Your task to perform on an android device: toggle priority inbox in the gmail app Image 0: 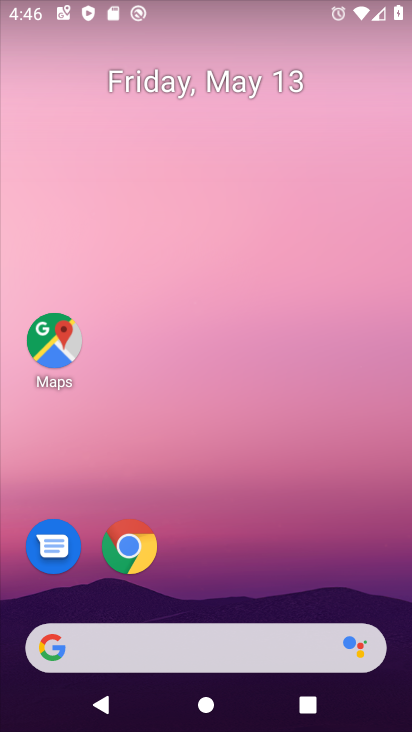
Step 0: drag from (242, 414) to (265, 10)
Your task to perform on an android device: toggle priority inbox in the gmail app Image 1: 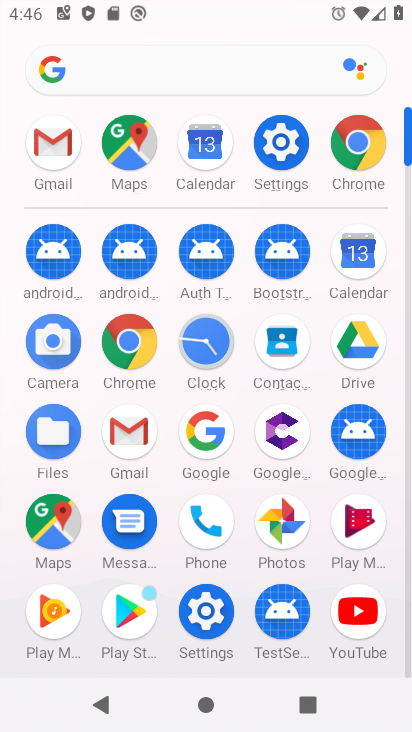
Step 1: click (131, 435)
Your task to perform on an android device: toggle priority inbox in the gmail app Image 2: 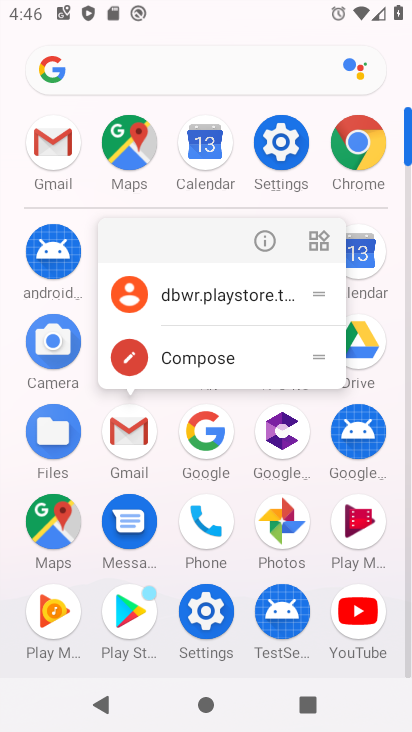
Step 2: click (129, 437)
Your task to perform on an android device: toggle priority inbox in the gmail app Image 3: 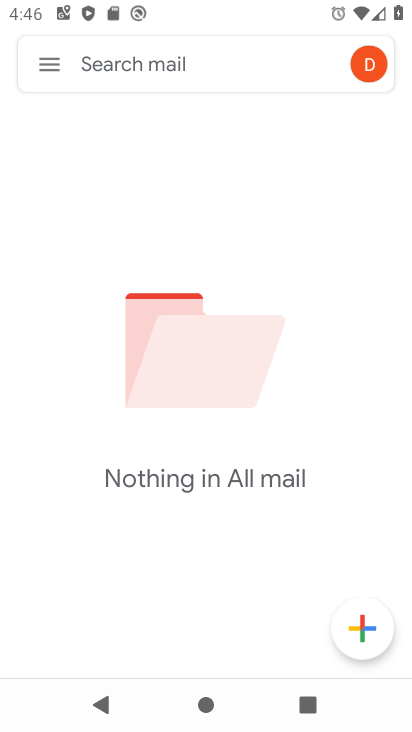
Step 3: click (45, 57)
Your task to perform on an android device: toggle priority inbox in the gmail app Image 4: 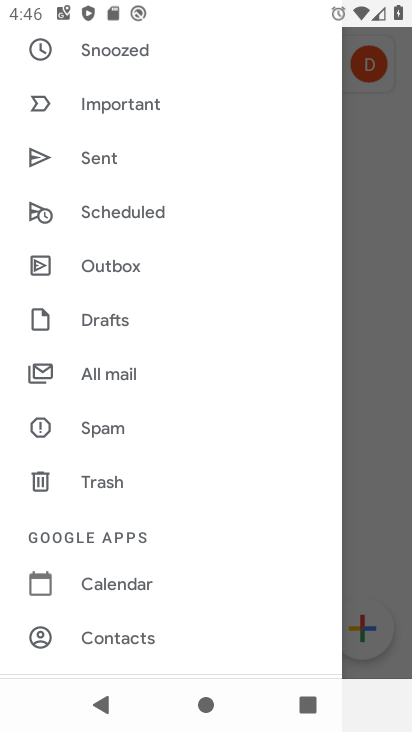
Step 4: drag from (116, 546) to (259, 29)
Your task to perform on an android device: toggle priority inbox in the gmail app Image 5: 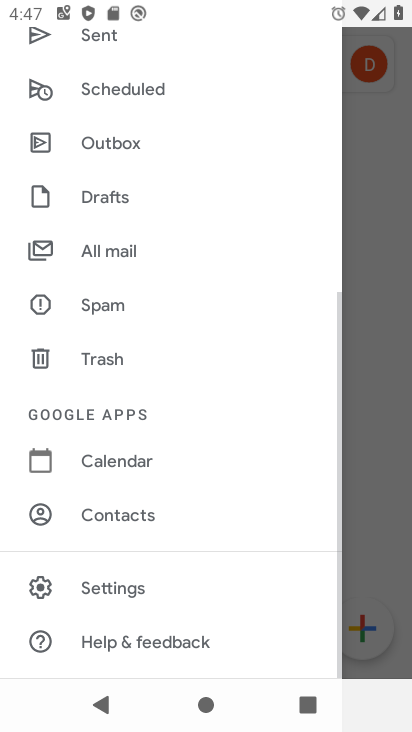
Step 5: click (131, 590)
Your task to perform on an android device: toggle priority inbox in the gmail app Image 6: 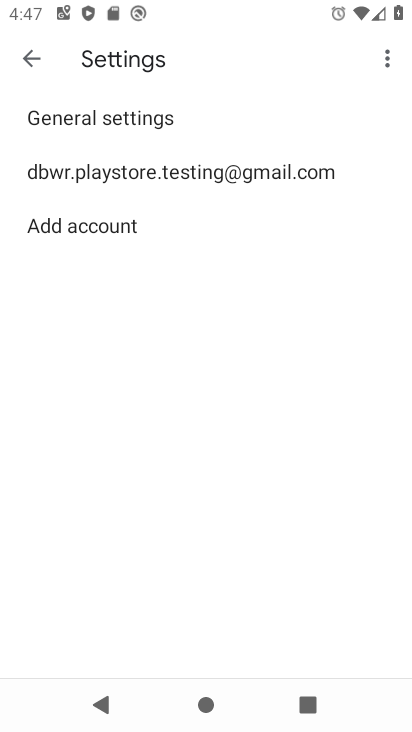
Step 6: click (126, 186)
Your task to perform on an android device: toggle priority inbox in the gmail app Image 7: 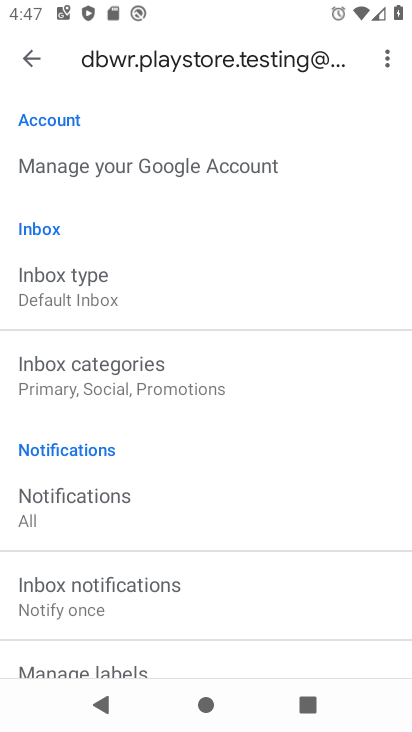
Step 7: click (104, 295)
Your task to perform on an android device: toggle priority inbox in the gmail app Image 8: 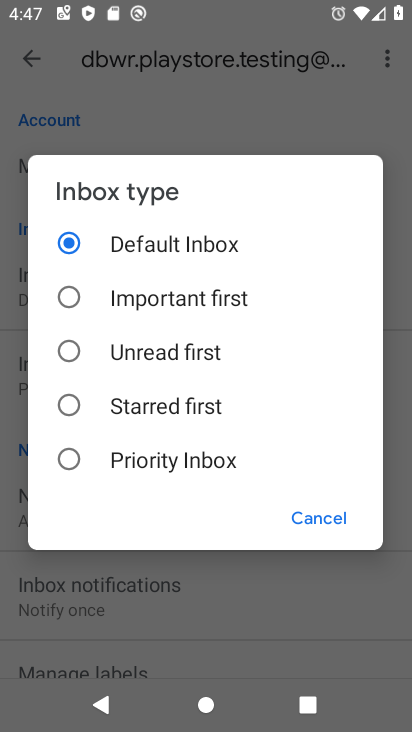
Step 8: click (108, 453)
Your task to perform on an android device: toggle priority inbox in the gmail app Image 9: 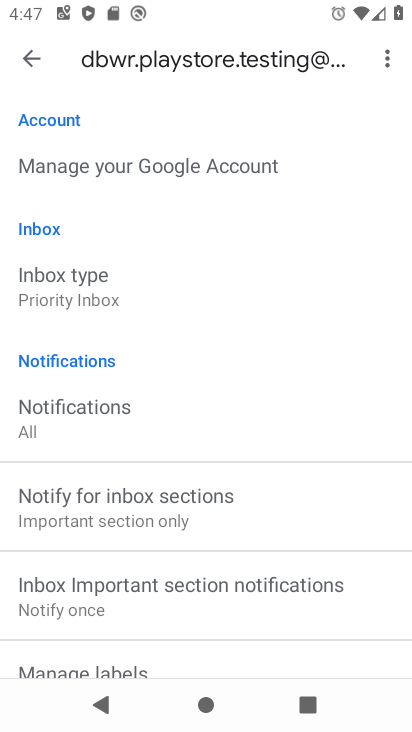
Step 9: task complete